Your task to perform on an android device: Check the news Image 0: 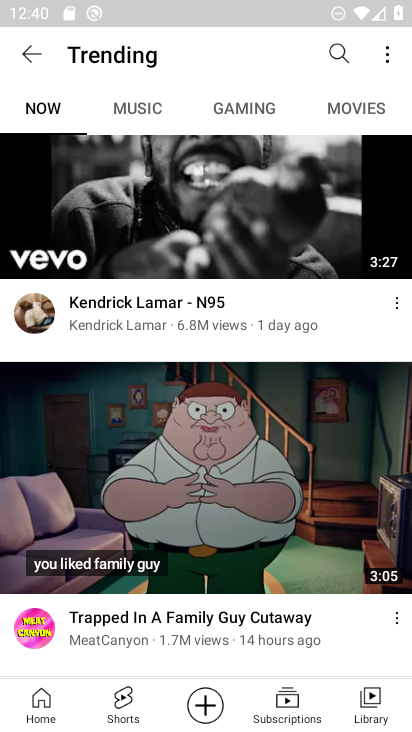
Step 0: press home button
Your task to perform on an android device: Check the news Image 1: 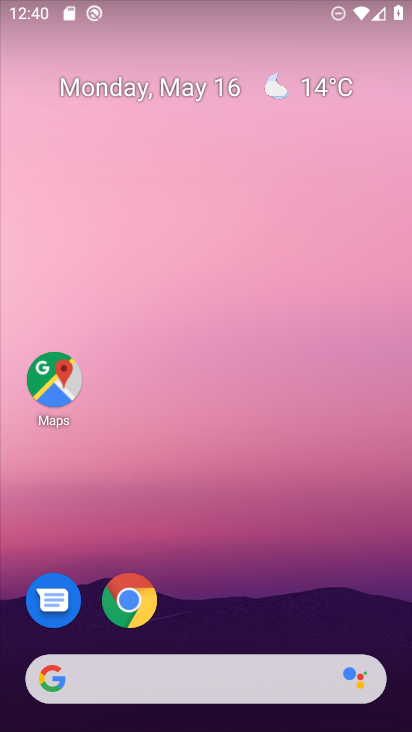
Step 1: task complete